Your task to perform on an android device: uninstall "Google Translate" Image 0: 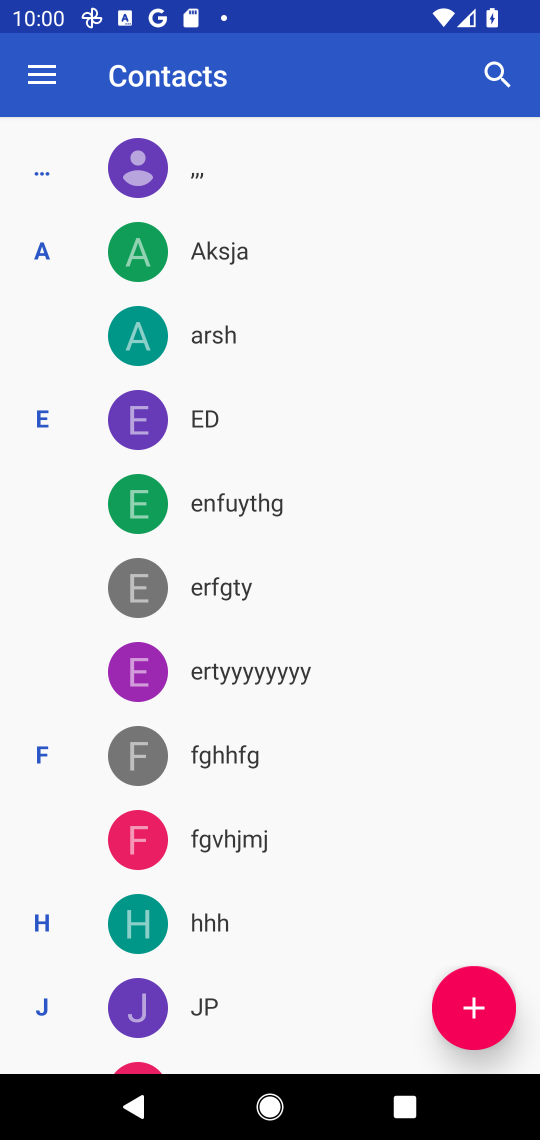
Step 0: press home button
Your task to perform on an android device: uninstall "Google Translate" Image 1: 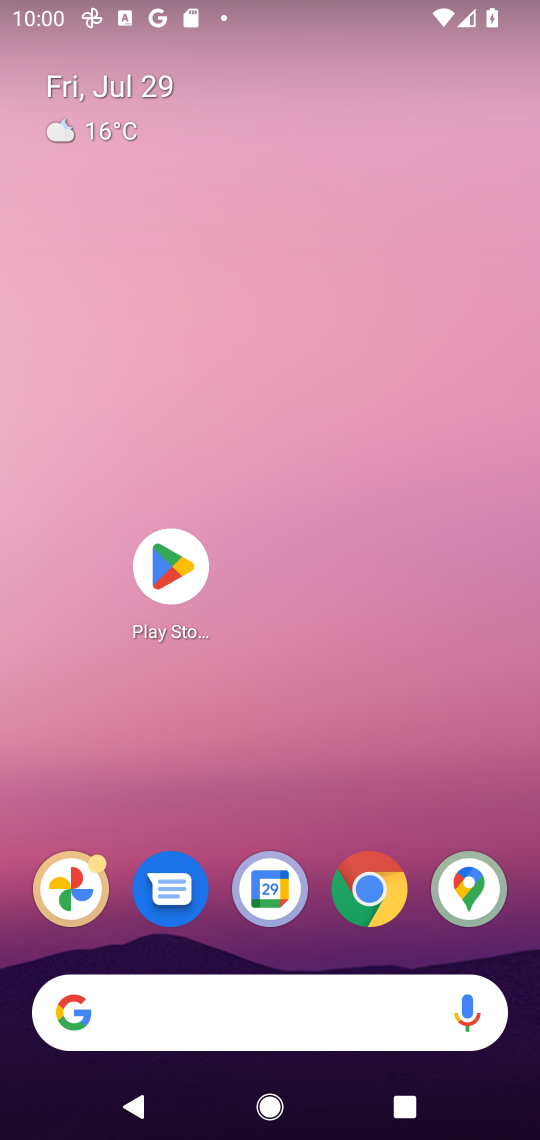
Step 1: click (151, 558)
Your task to perform on an android device: uninstall "Google Translate" Image 2: 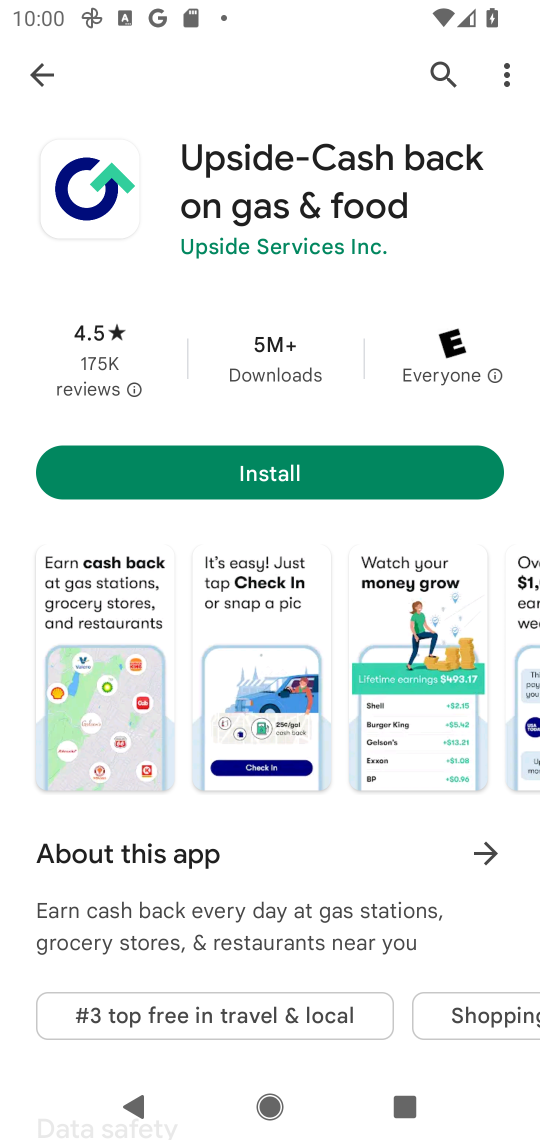
Step 2: click (452, 73)
Your task to perform on an android device: uninstall "Google Translate" Image 3: 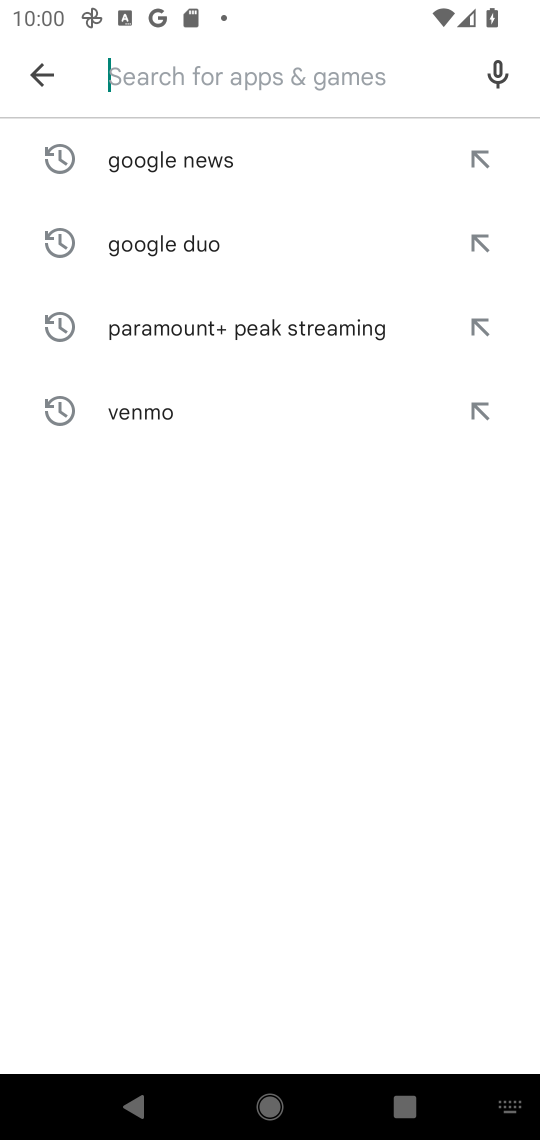
Step 3: type "Google Translate"
Your task to perform on an android device: uninstall "Google Translate" Image 4: 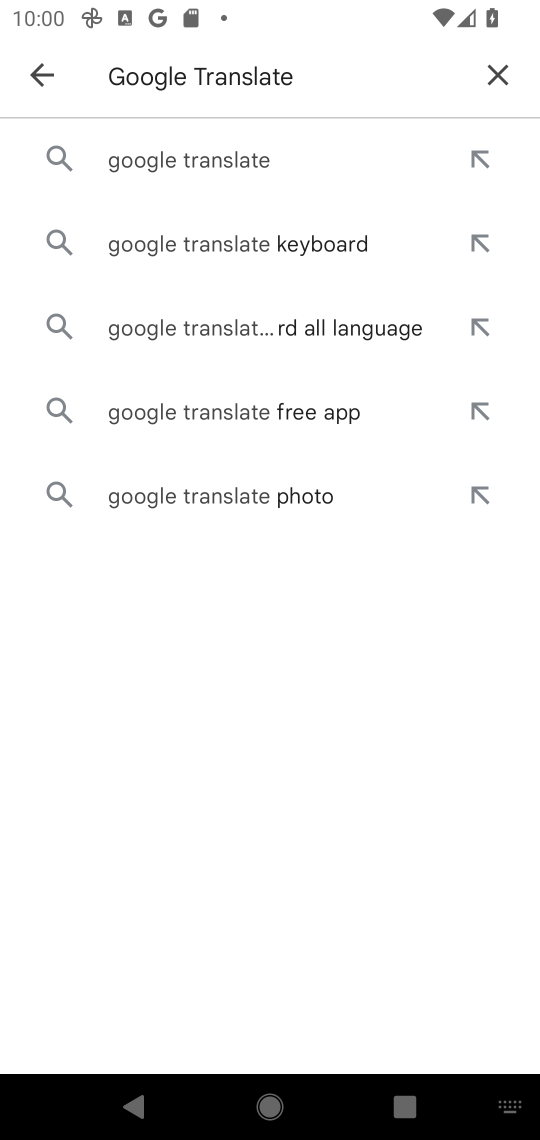
Step 4: click (208, 164)
Your task to perform on an android device: uninstall "Google Translate" Image 5: 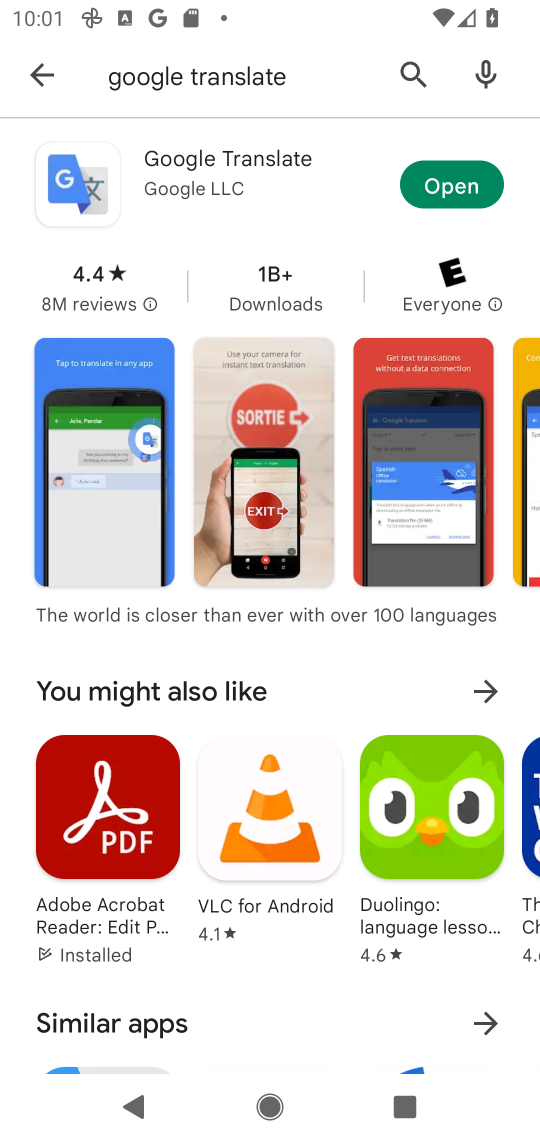
Step 5: click (140, 172)
Your task to perform on an android device: uninstall "Google Translate" Image 6: 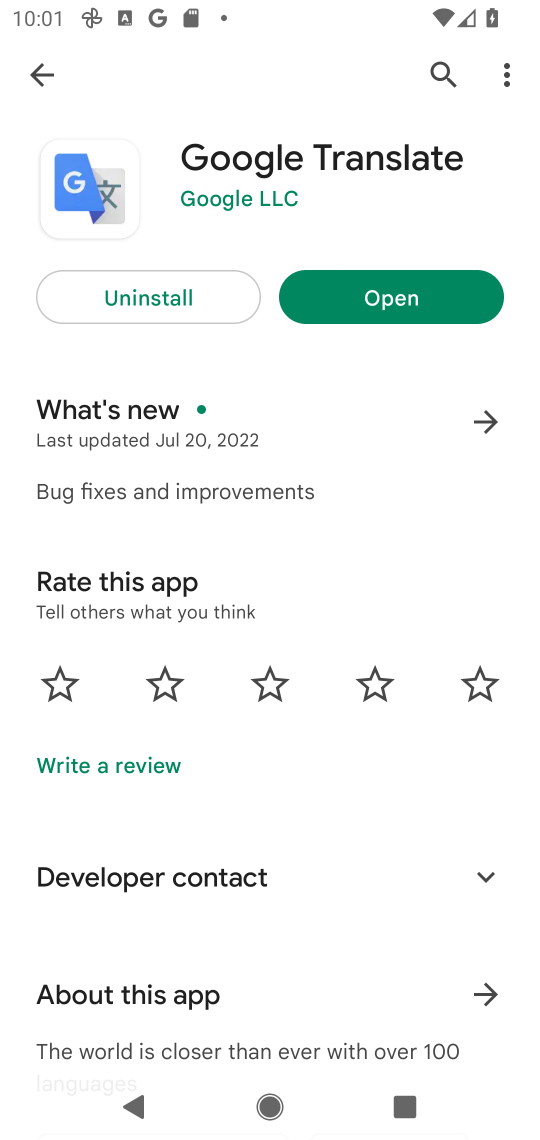
Step 6: click (181, 295)
Your task to perform on an android device: uninstall "Google Translate" Image 7: 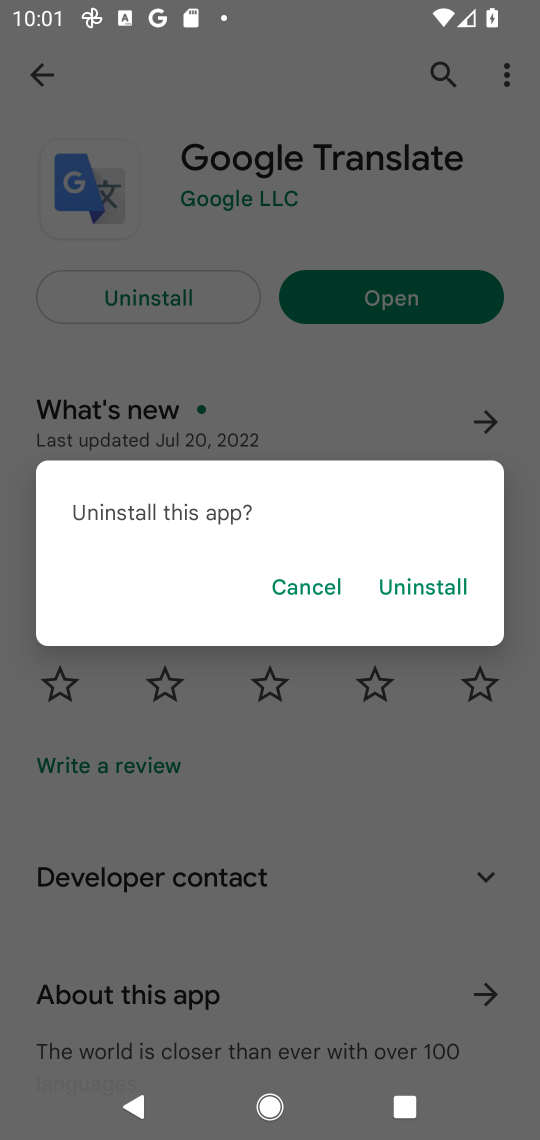
Step 7: click (424, 586)
Your task to perform on an android device: uninstall "Google Translate" Image 8: 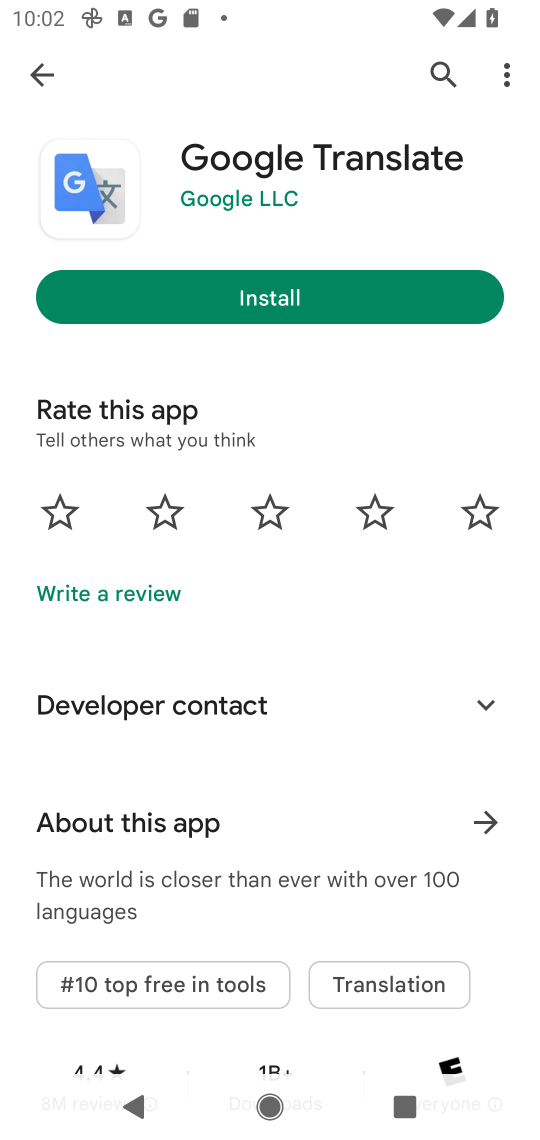
Step 8: task complete